Your task to perform on an android device: Turn off the flashlight Image 0: 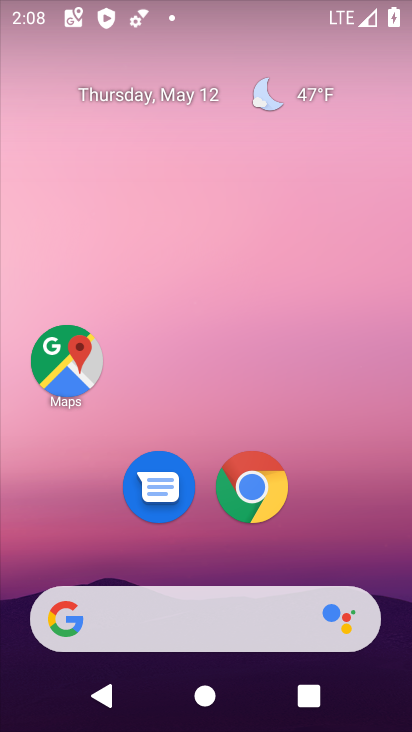
Step 0: drag from (207, 0) to (405, 512)
Your task to perform on an android device: Turn off the flashlight Image 1: 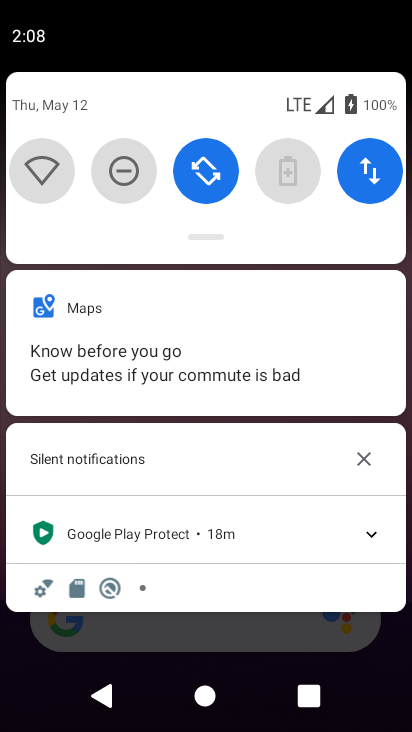
Step 1: drag from (342, 186) to (411, 521)
Your task to perform on an android device: Turn off the flashlight Image 2: 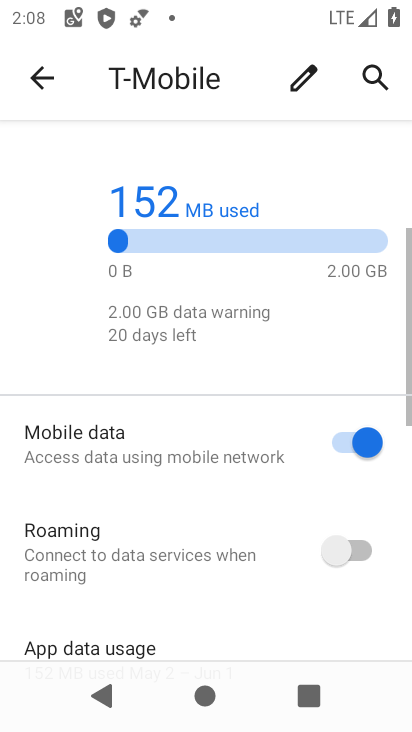
Step 2: click (319, 209)
Your task to perform on an android device: Turn off the flashlight Image 3: 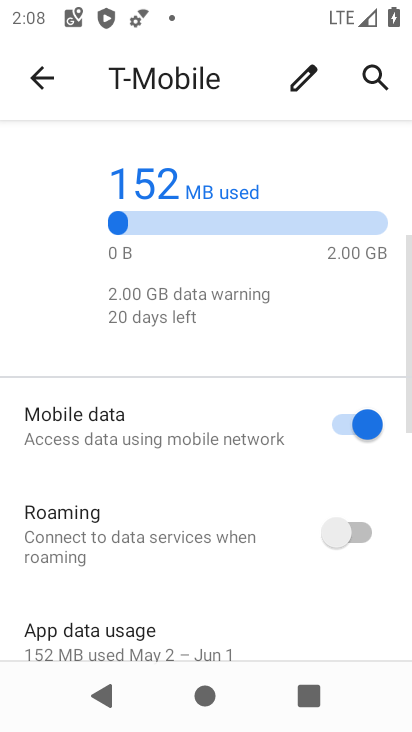
Step 3: click (36, 70)
Your task to perform on an android device: Turn off the flashlight Image 4: 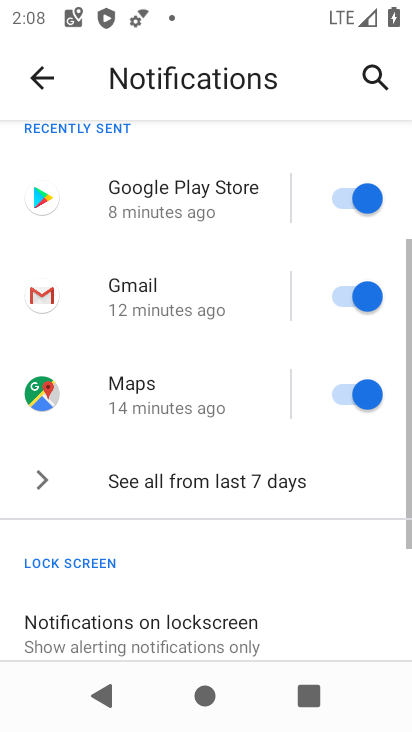
Step 4: click (36, 70)
Your task to perform on an android device: Turn off the flashlight Image 5: 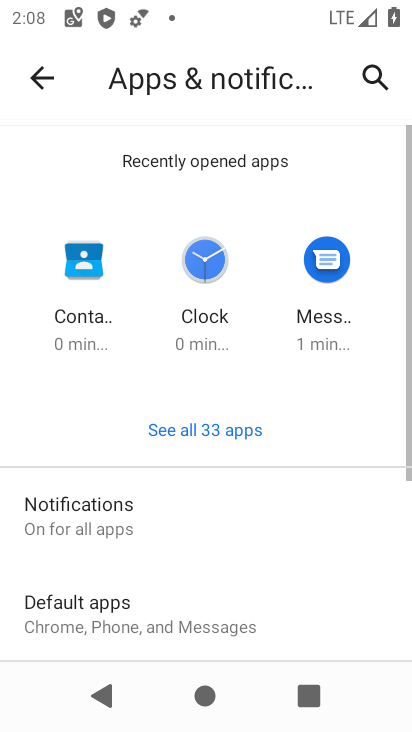
Step 5: click (36, 71)
Your task to perform on an android device: Turn off the flashlight Image 6: 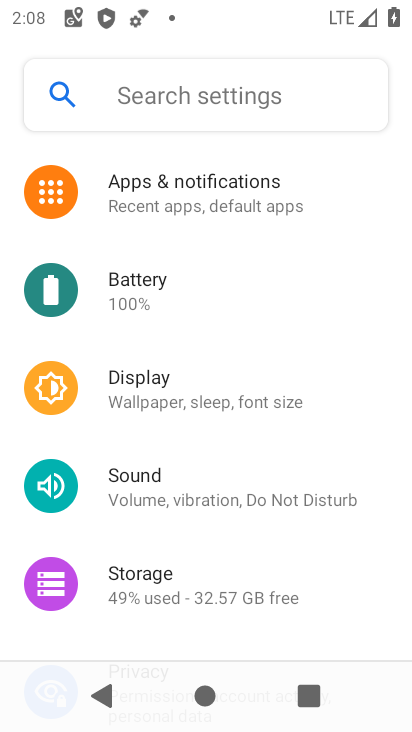
Step 6: click (194, 403)
Your task to perform on an android device: Turn off the flashlight Image 7: 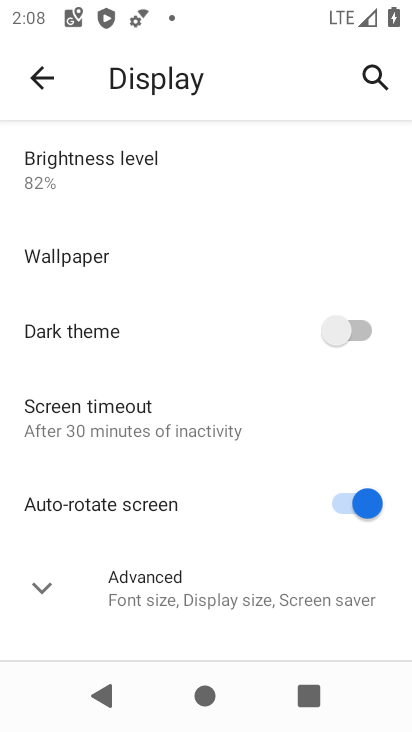
Step 7: click (154, 587)
Your task to perform on an android device: Turn off the flashlight Image 8: 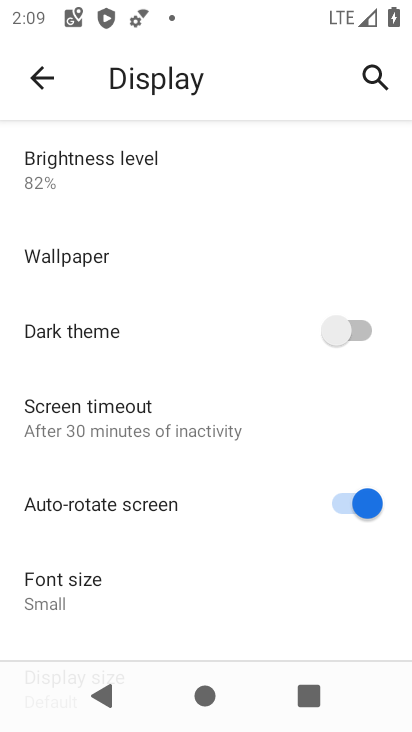
Step 8: task complete